Your task to perform on an android device: clear all cookies in the chrome app Image 0: 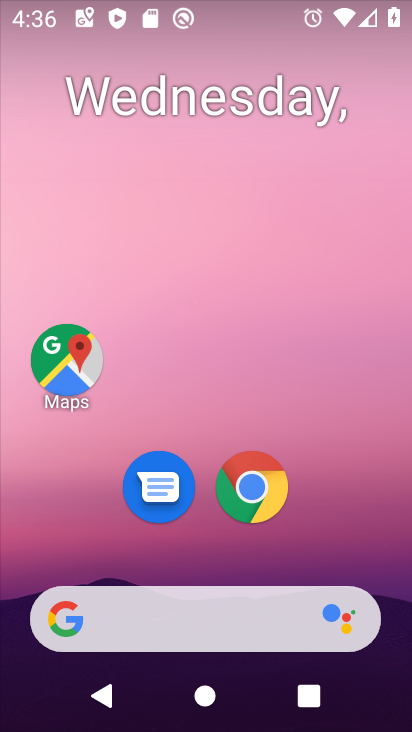
Step 0: press home button
Your task to perform on an android device: clear all cookies in the chrome app Image 1: 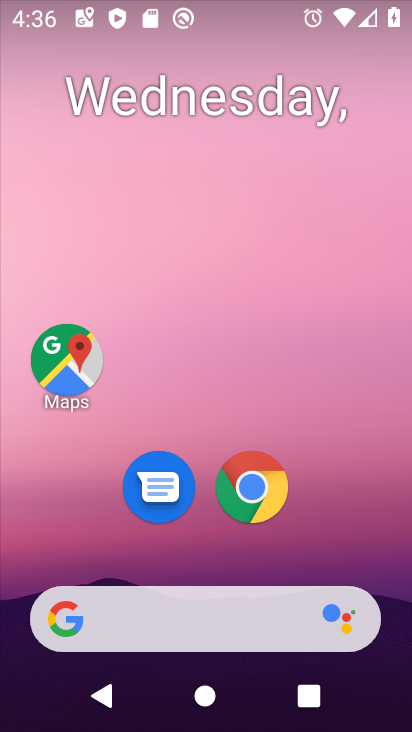
Step 1: click (259, 474)
Your task to perform on an android device: clear all cookies in the chrome app Image 2: 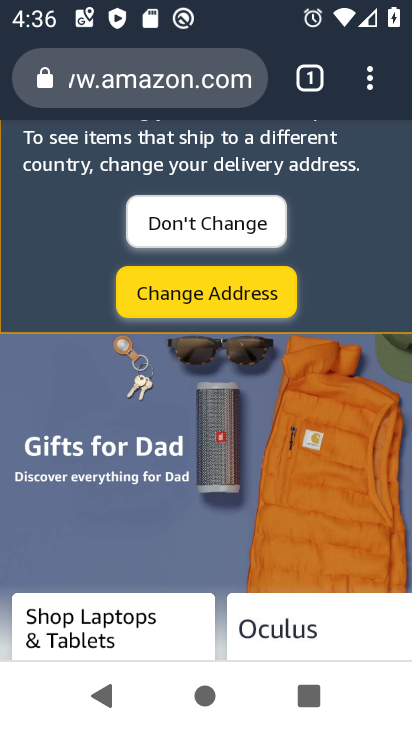
Step 2: click (359, 65)
Your task to perform on an android device: clear all cookies in the chrome app Image 3: 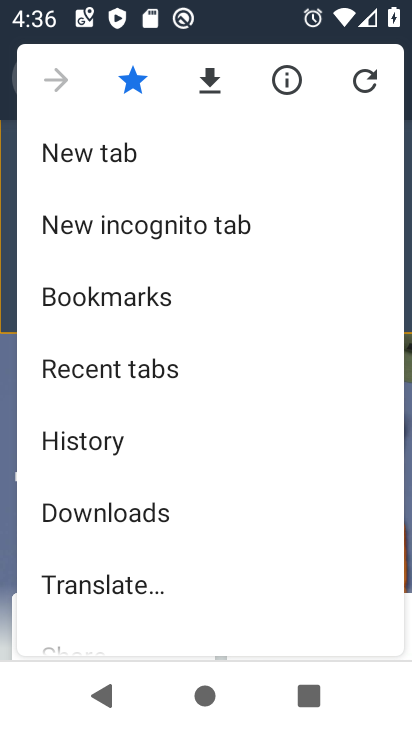
Step 3: click (151, 442)
Your task to perform on an android device: clear all cookies in the chrome app Image 4: 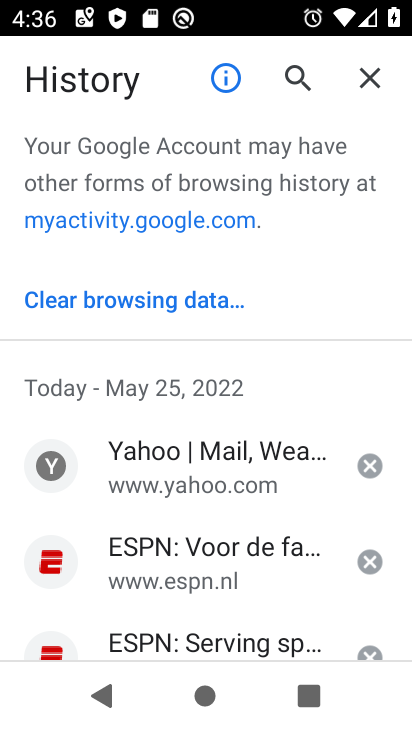
Step 4: click (200, 296)
Your task to perform on an android device: clear all cookies in the chrome app Image 5: 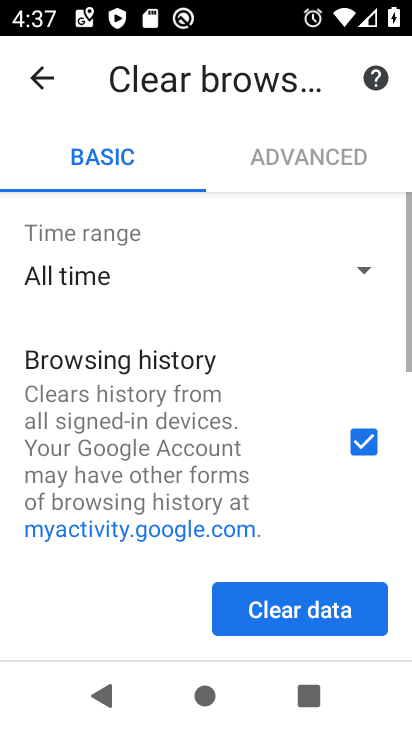
Step 5: click (368, 264)
Your task to perform on an android device: clear all cookies in the chrome app Image 6: 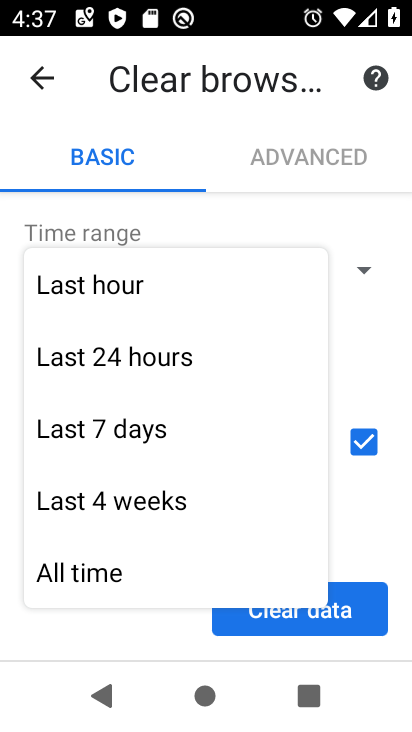
Step 6: click (149, 569)
Your task to perform on an android device: clear all cookies in the chrome app Image 7: 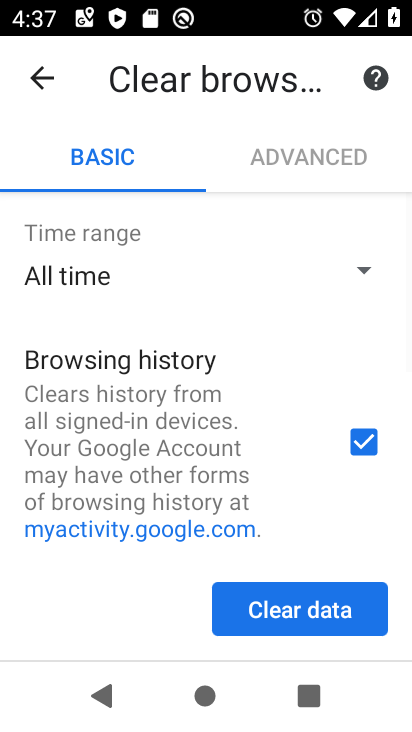
Step 7: drag from (287, 488) to (304, 246)
Your task to perform on an android device: clear all cookies in the chrome app Image 8: 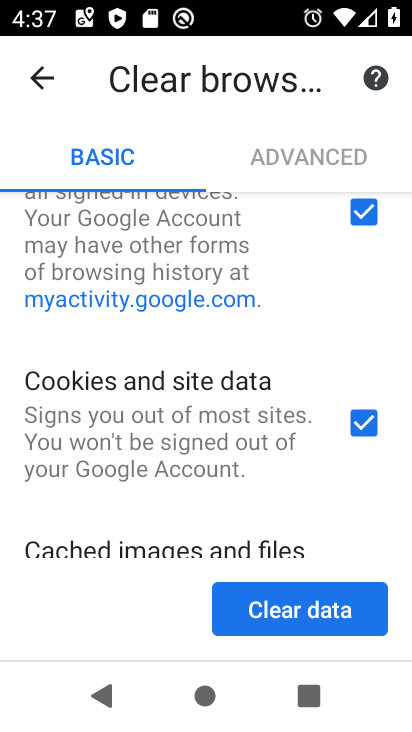
Step 8: click (360, 208)
Your task to perform on an android device: clear all cookies in the chrome app Image 9: 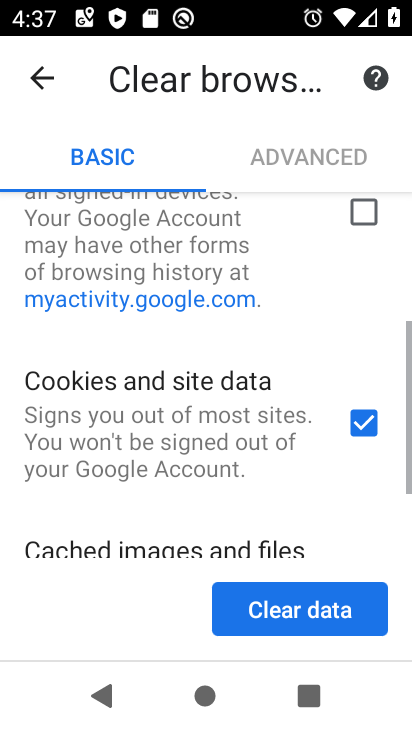
Step 9: drag from (324, 512) to (331, 304)
Your task to perform on an android device: clear all cookies in the chrome app Image 10: 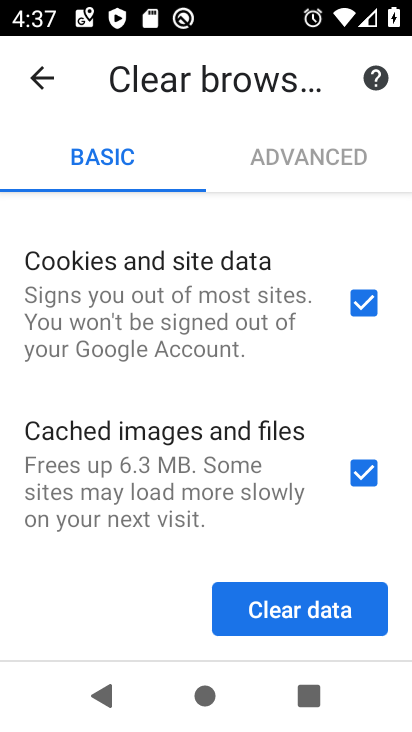
Step 10: click (361, 471)
Your task to perform on an android device: clear all cookies in the chrome app Image 11: 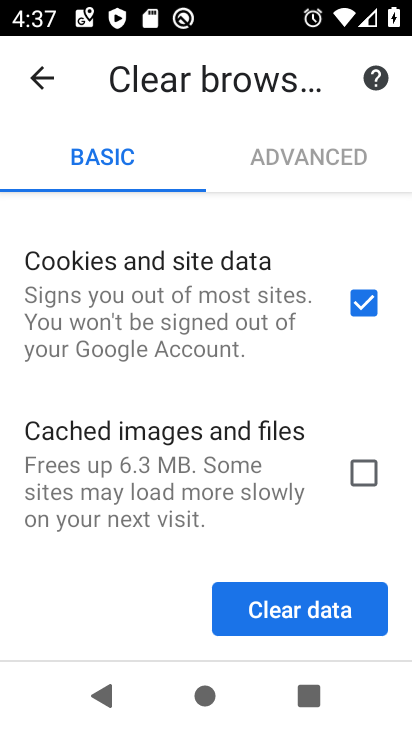
Step 11: click (363, 577)
Your task to perform on an android device: clear all cookies in the chrome app Image 12: 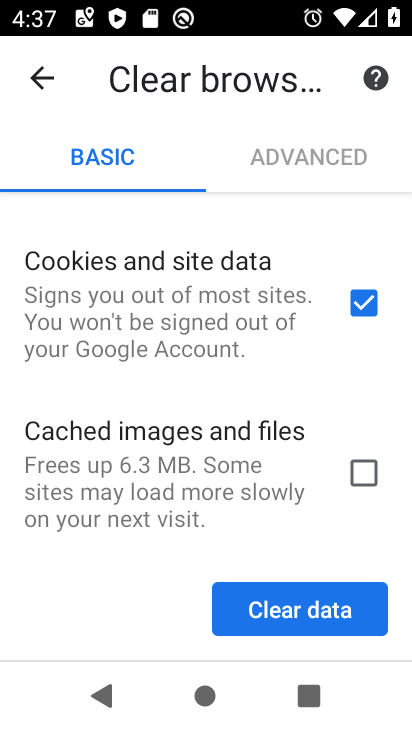
Step 12: click (362, 587)
Your task to perform on an android device: clear all cookies in the chrome app Image 13: 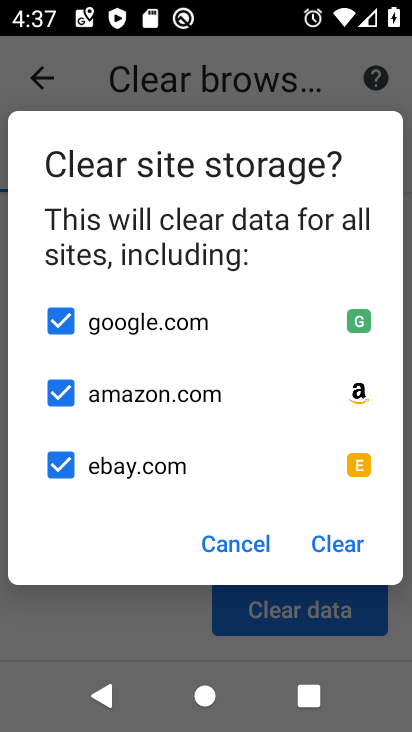
Step 13: click (338, 533)
Your task to perform on an android device: clear all cookies in the chrome app Image 14: 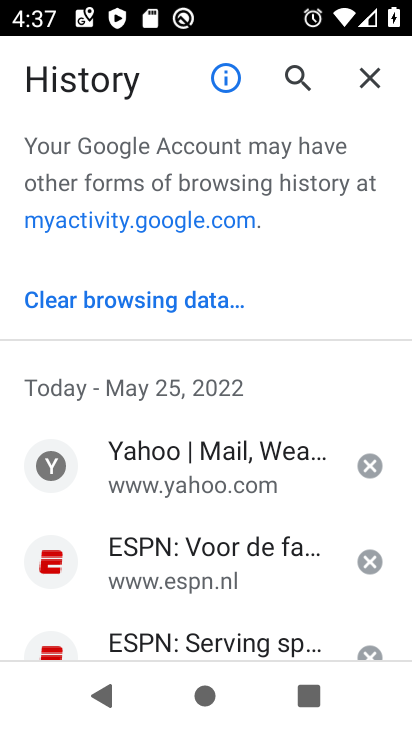
Step 14: task complete